Your task to perform on an android device: What's the weather going to be this weekend? Image 0: 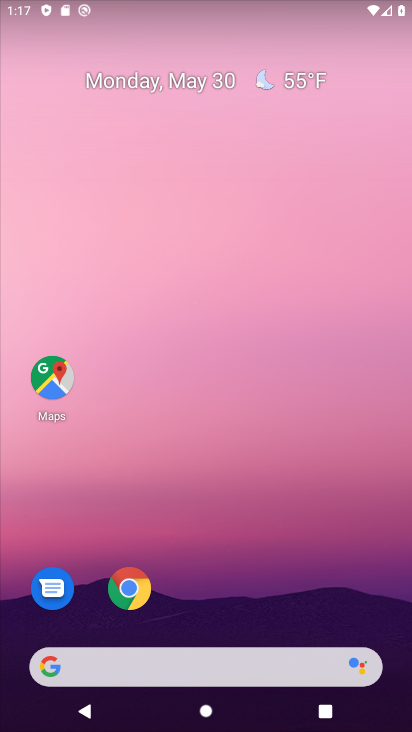
Step 0: click (306, 81)
Your task to perform on an android device: What's the weather going to be this weekend? Image 1: 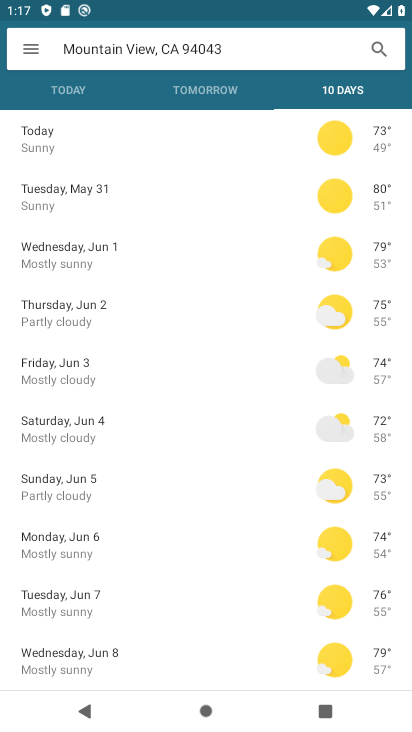
Step 1: task complete